Your task to perform on an android device: open app "WhatsApp Messenger" (install if not already installed) Image 0: 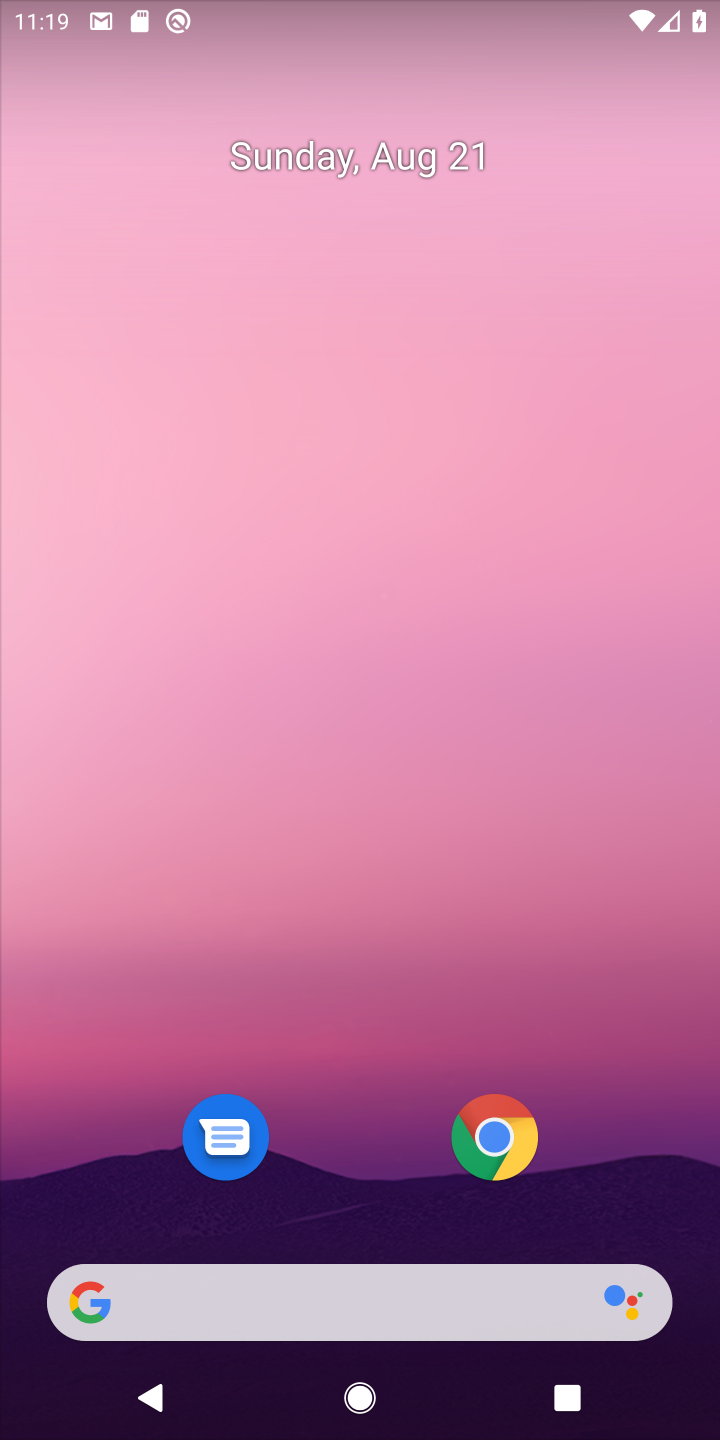
Step 0: drag from (597, 940) to (536, 299)
Your task to perform on an android device: open app "WhatsApp Messenger" (install if not already installed) Image 1: 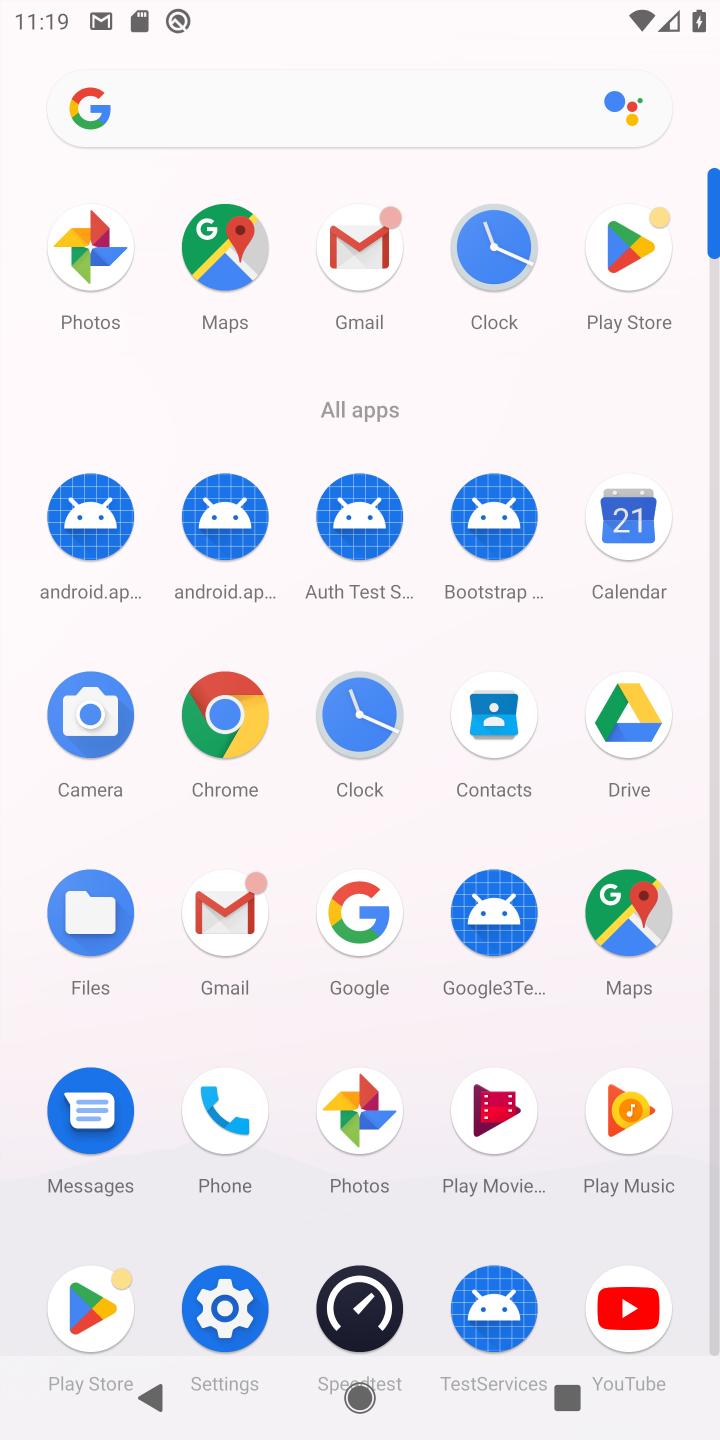
Step 1: click (85, 1302)
Your task to perform on an android device: open app "WhatsApp Messenger" (install if not already installed) Image 2: 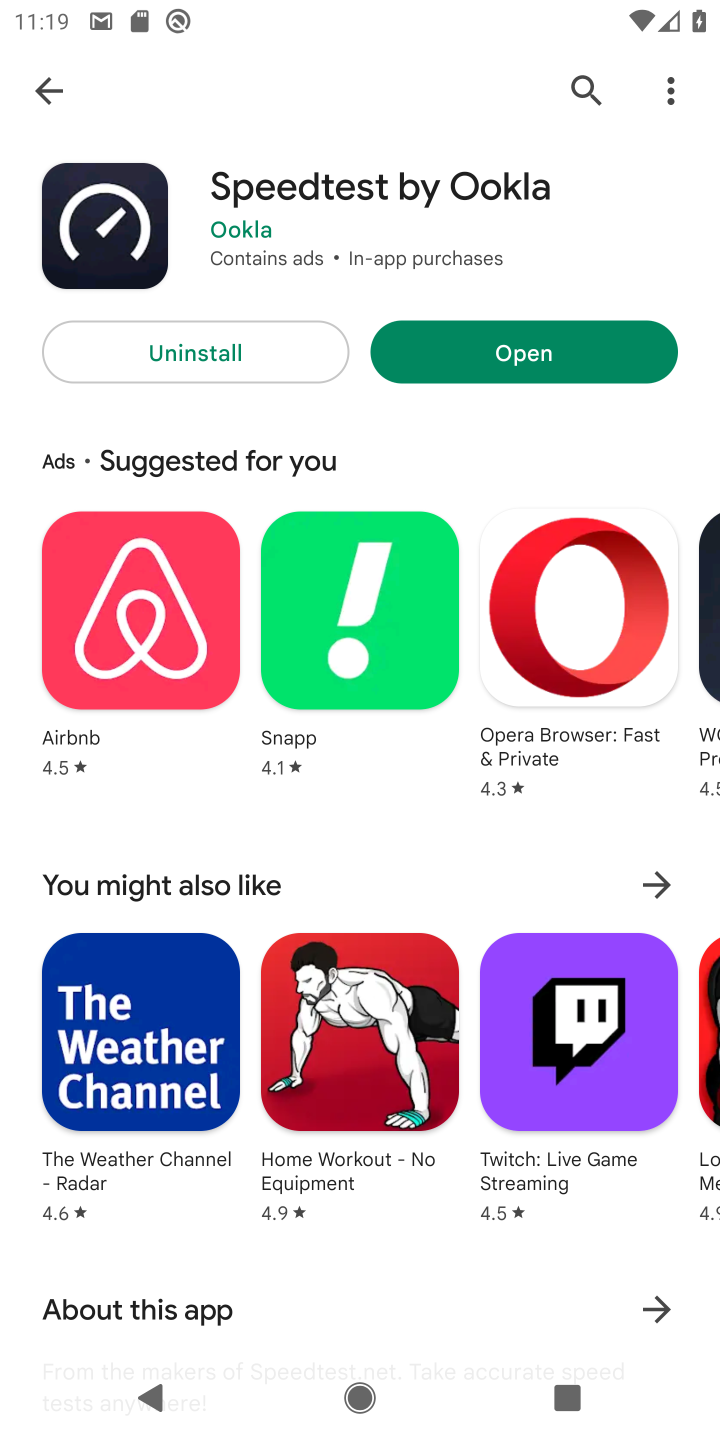
Step 2: click (582, 87)
Your task to perform on an android device: open app "WhatsApp Messenger" (install if not already installed) Image 3: 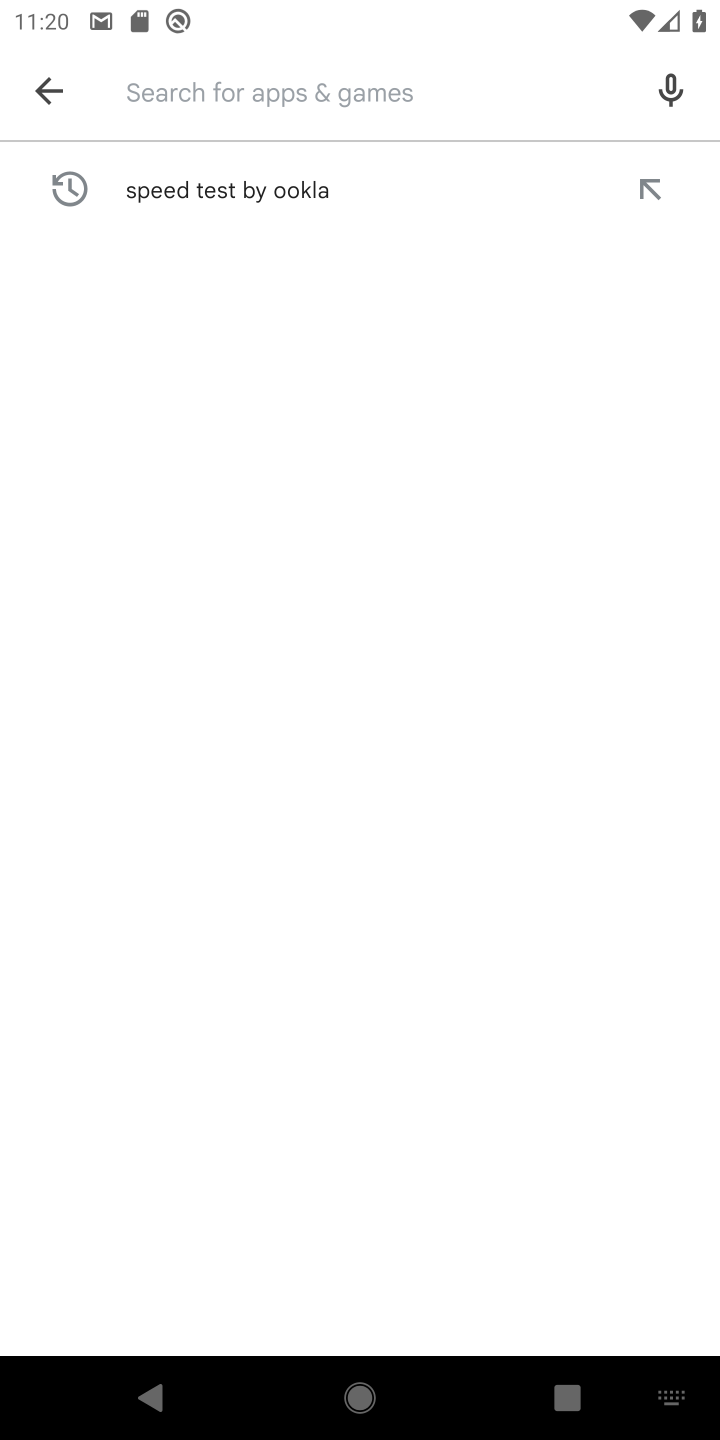
Step 3: type "whatsAPP Massenger"
Your task to perform on an android device: open app "WhatsApp Messenger" (install if not already installed) Image 4: 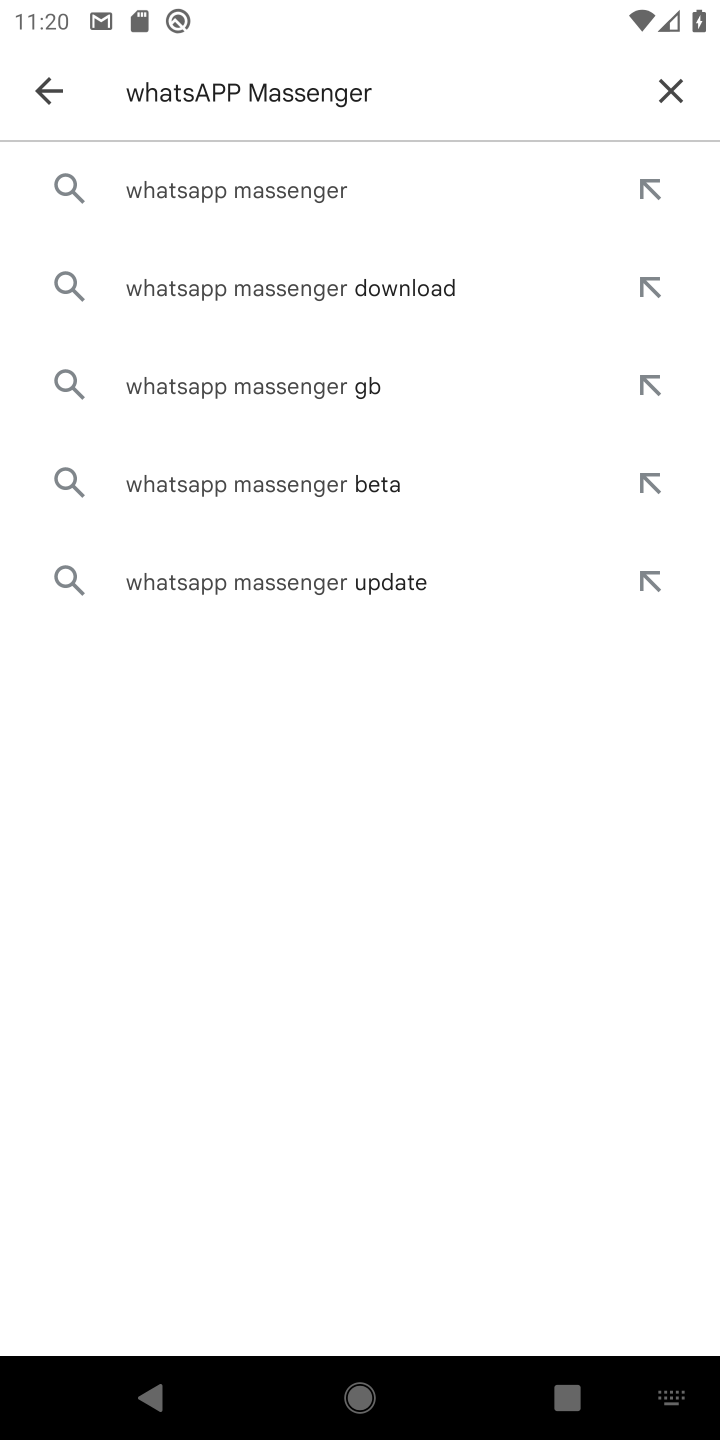
Step 4: click (177, 182)
Your task to perform on an android device: open app "WhatsApp Messenger" (install if not already installed) Image 5: 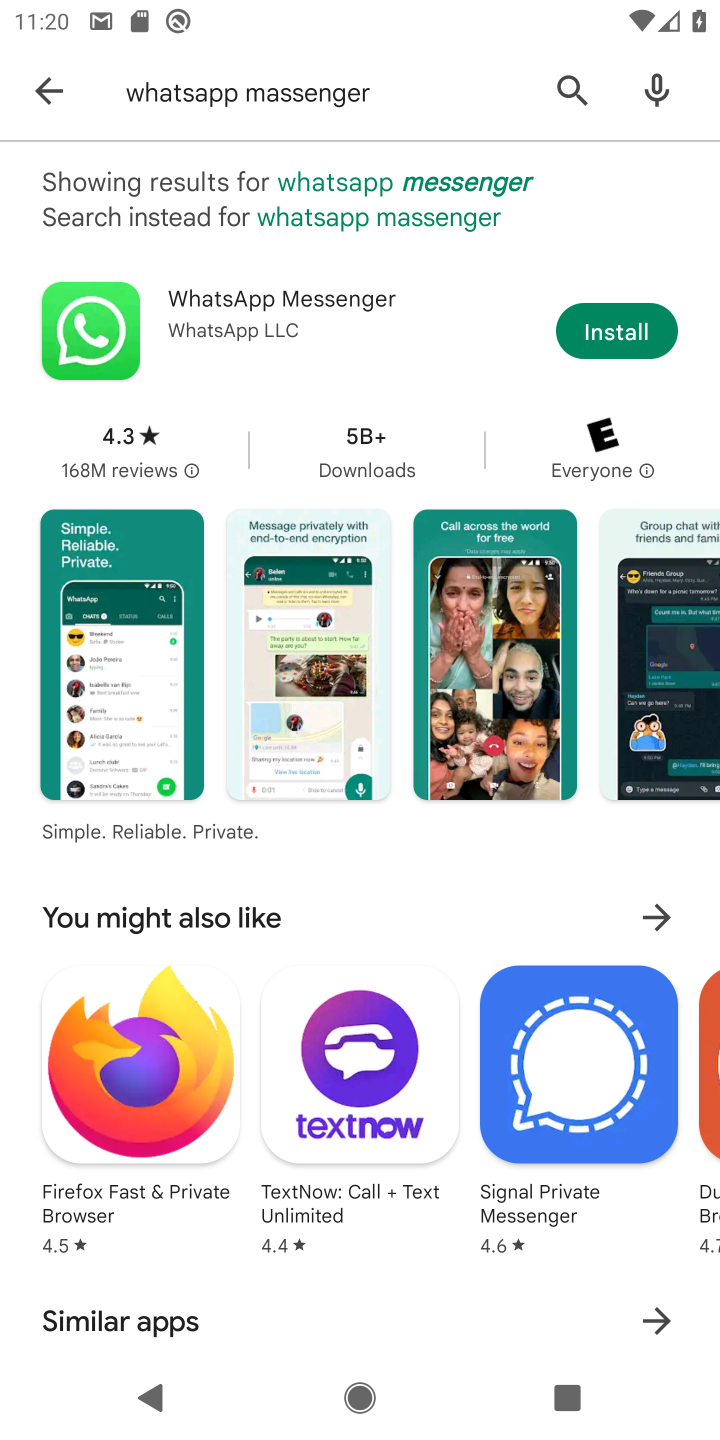
Step 5: click (604, 328)
Your task to perform on an android device: open app "WhatsApp Messenger" (install if not already installed) Image 6: 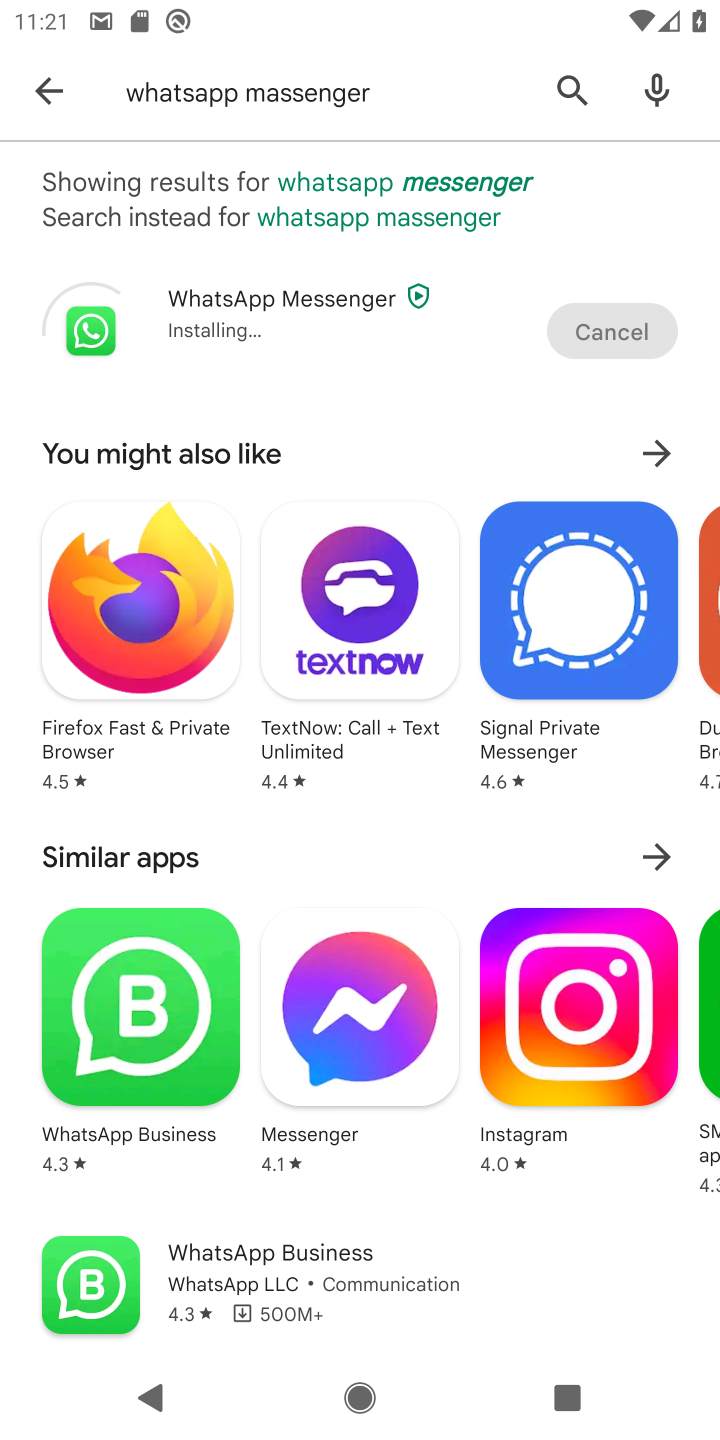
Step 6: click (281, 300)
Your task to perform on an android device: open app "WhatsApp Messenger" (install if not already installed) Image 7: 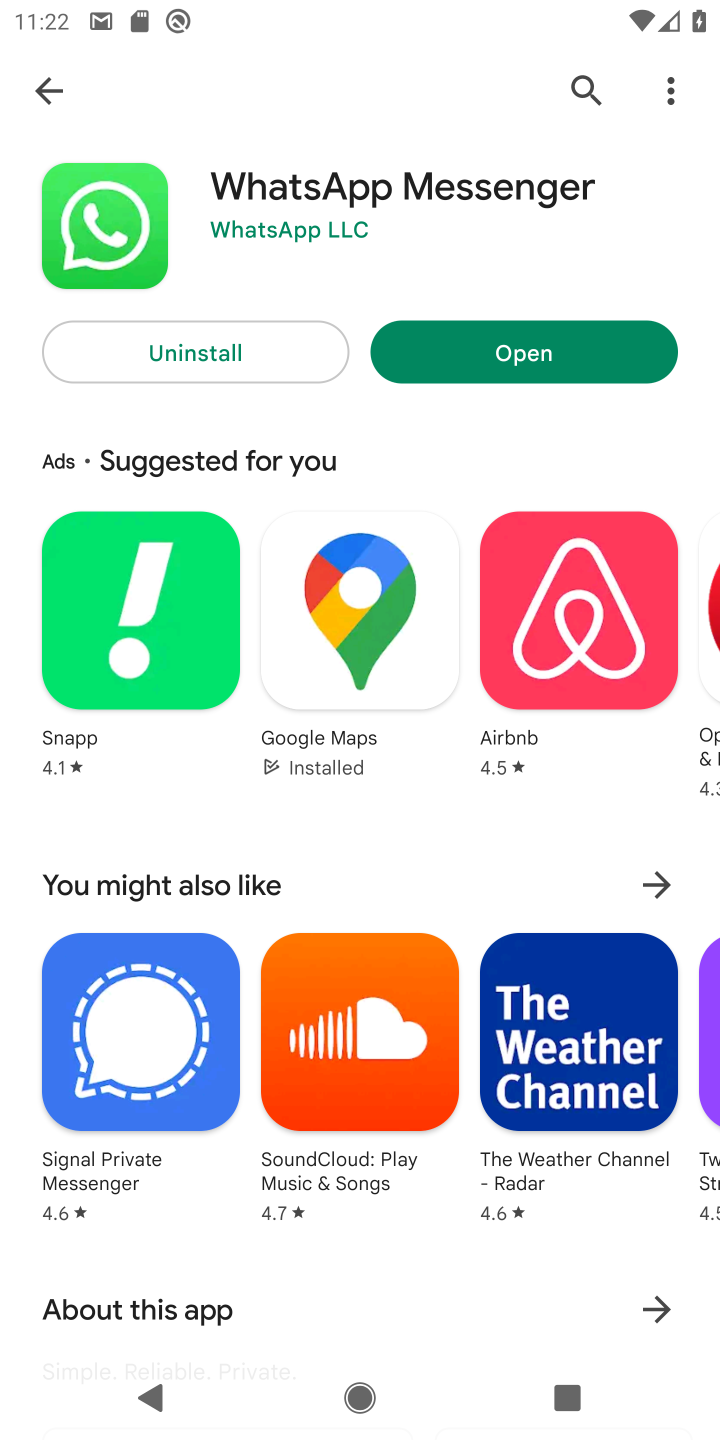
Step 7: click (537, 350)
Your task to perform on an android device: open app "WhatsApp Messenger" (install if not already installed) Image 8: 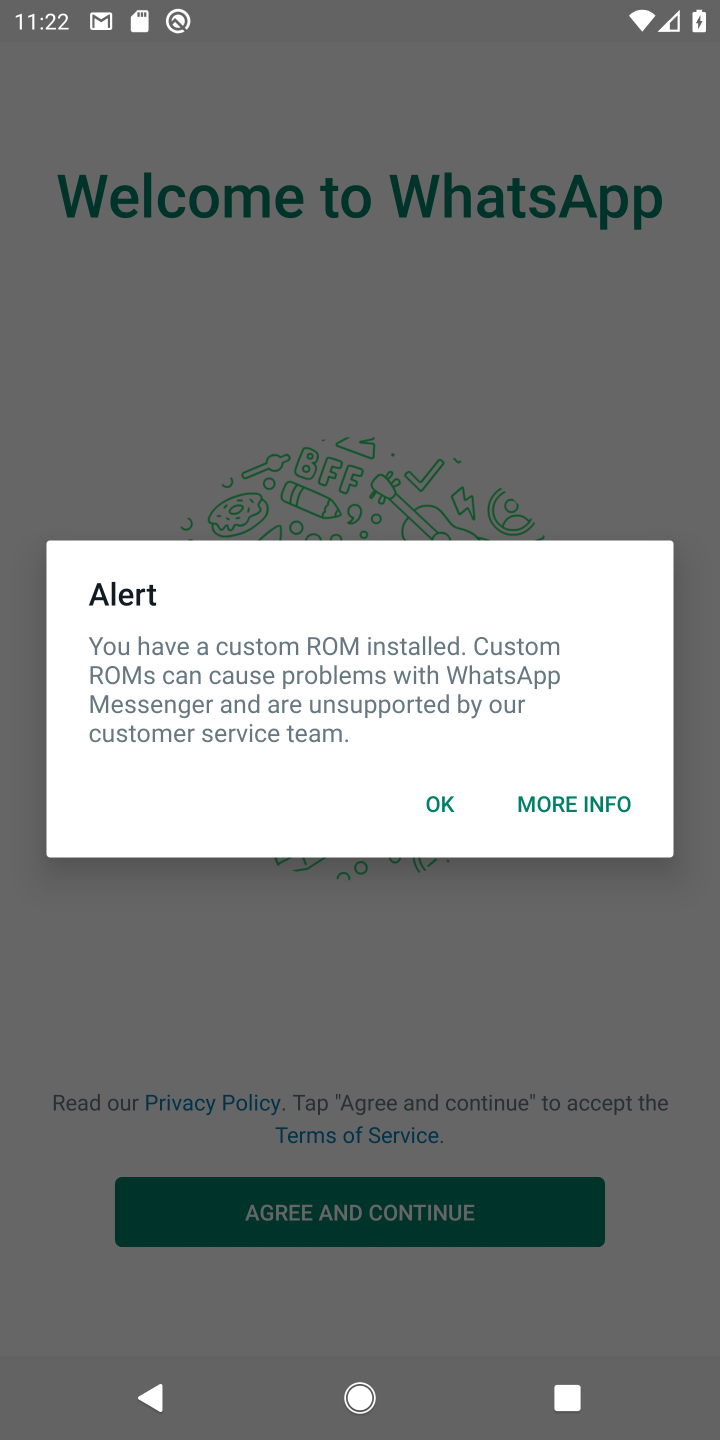
Step 8: task complete